Your task to perform on an android device: clear history in the chrome app Image 0: 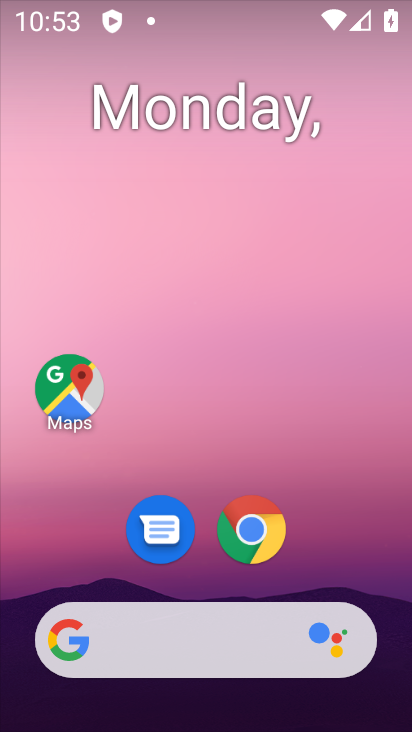
Step 0: click (245, 549)
Your task to perform on an android device: clear history in the chrome app Image 1: 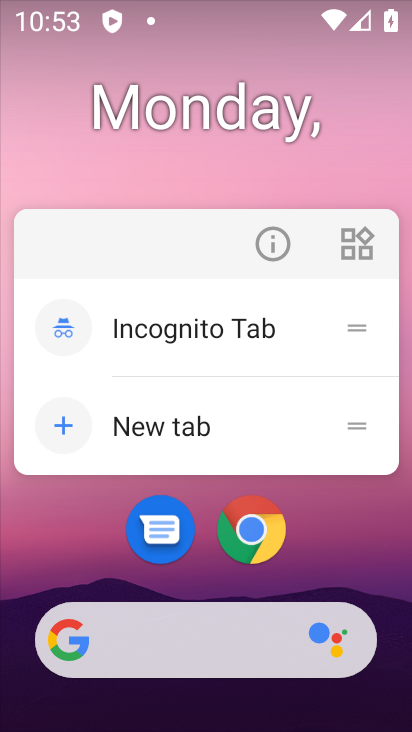
Step 1: click (249, 531)
Your task to perform on an android device: clear history in the chrome app Image 2: 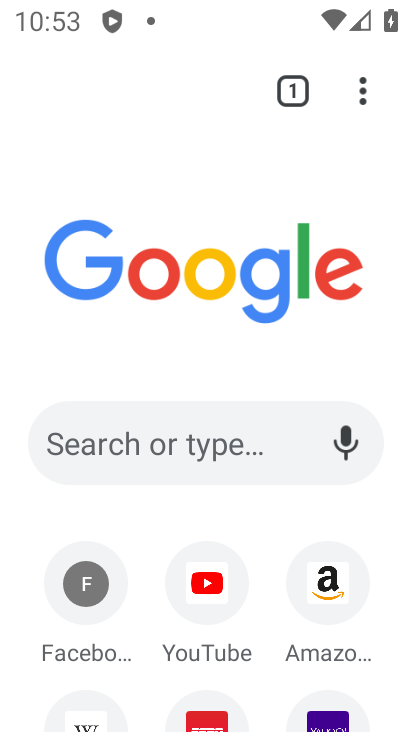
Step 2: click (366, 100)
Your task to perform on an android device: clear history in the chrome app Image 3: 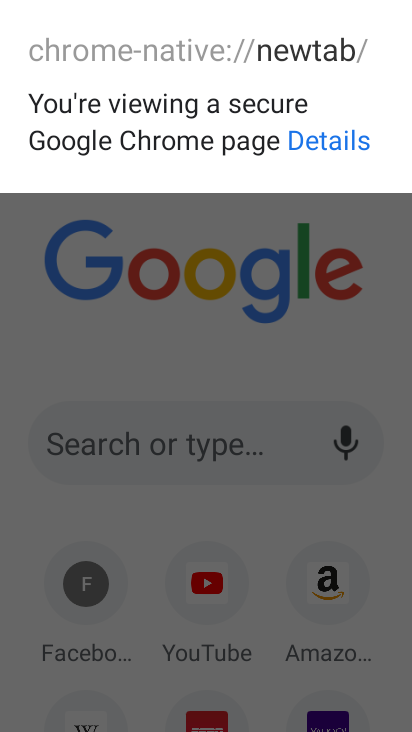
Step 3: click (356, 104)
Your task to perform on an android device: clear history in the chrome app Image 4: 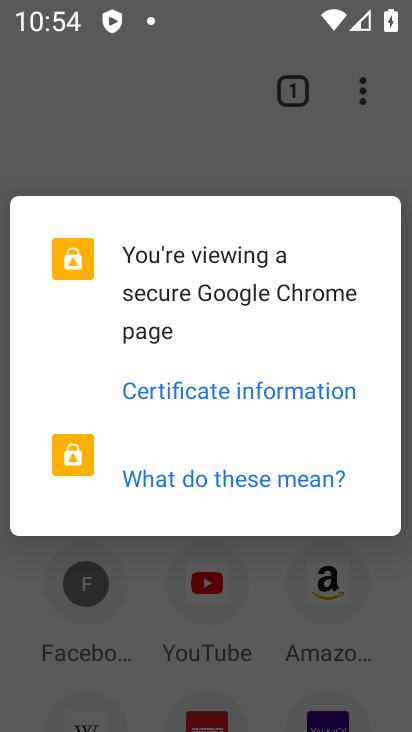
Step 4: click (335, 139)
Your task to perform on an android device: clear history in the chrome app Image 5: 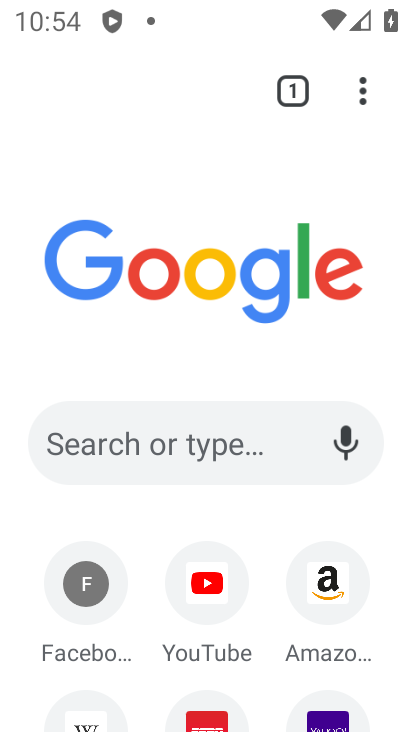
Step 5: task complete